Your task to perform on an android device: Open Google Maps Image 0: 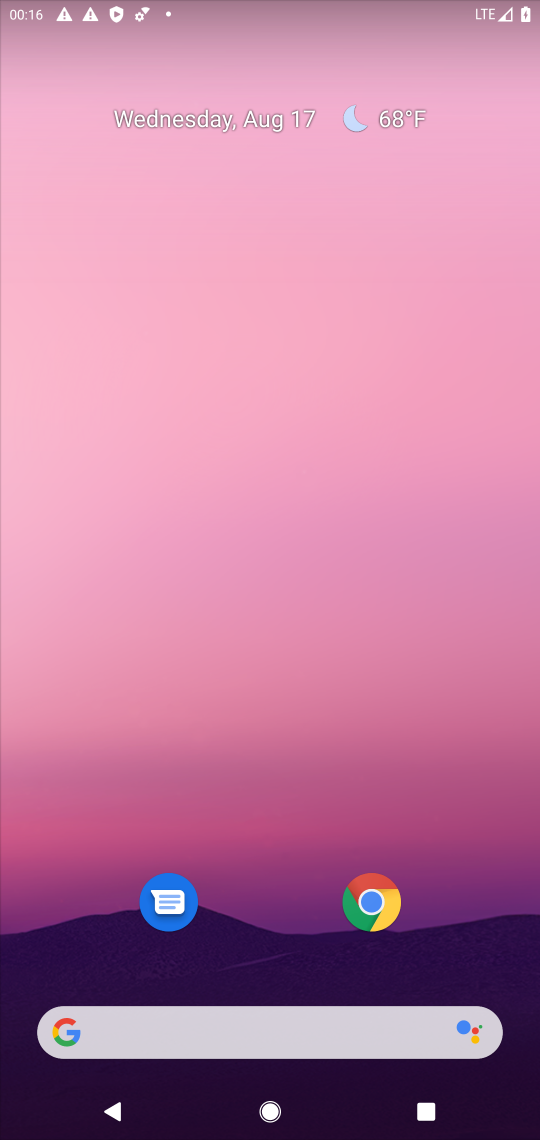
Step 0: drag from (273, 982) to (287, 14)
Your task to perform on an android device: Open Google Maps Image 1: 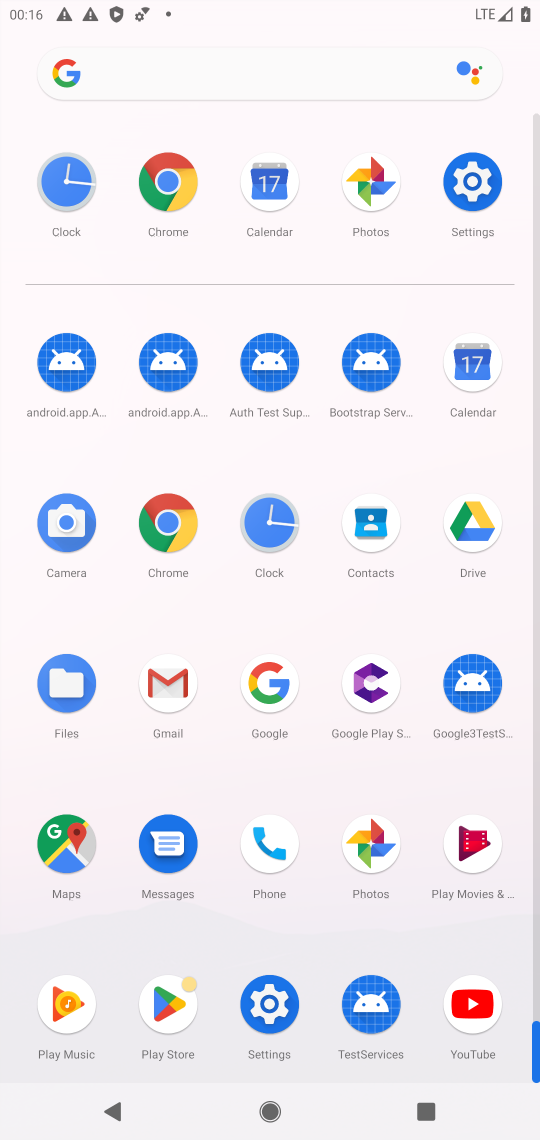
Step 1: click (69, 849)
Your task to perform on an android device: Open Google Maps Image 2: 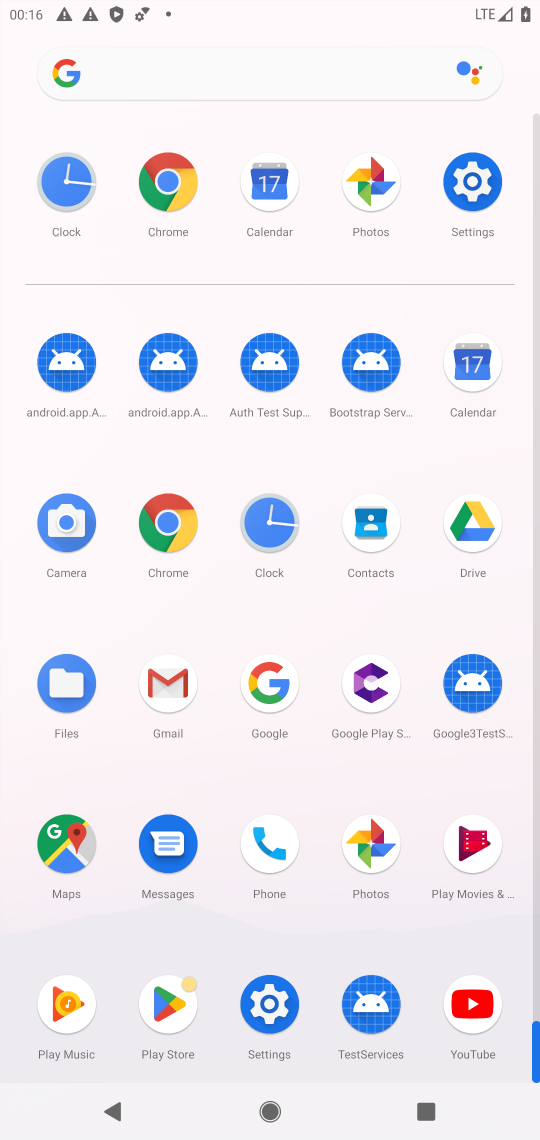
Step 2: click (66, 859)
Your task to perform on an android device: Open Google Maps Image 3: 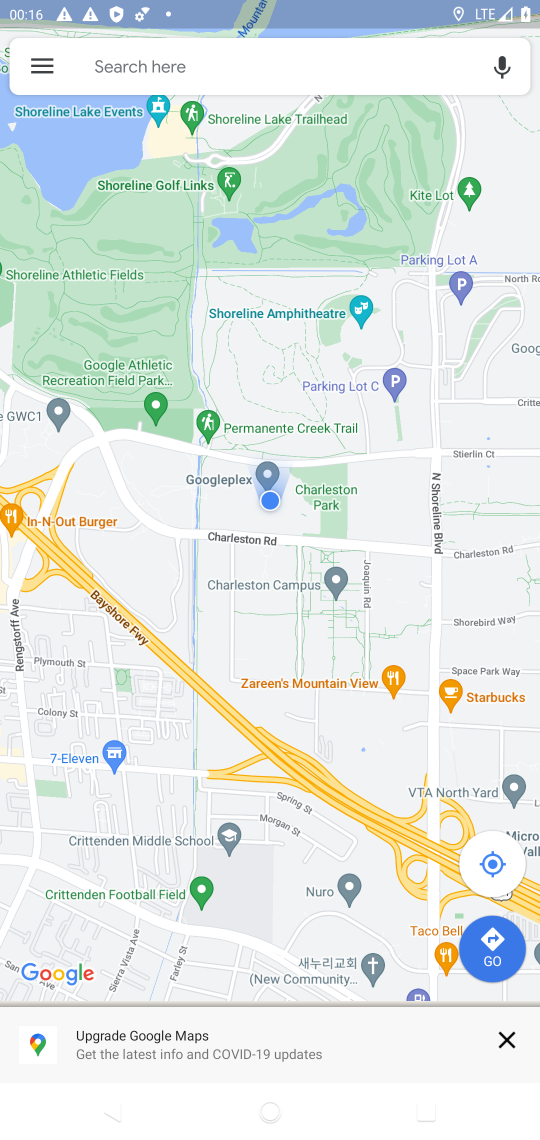
Step 3: click (502, 1040)
Your task to perform on an android device: Open Google Maps Image 4: 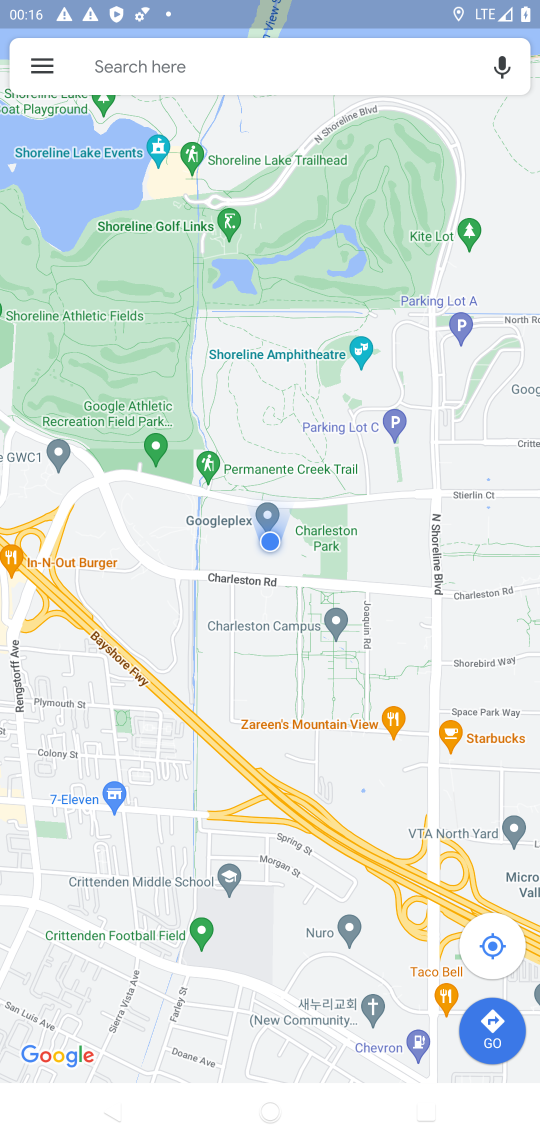
Step 4: task complete